Your task to perform on an android device: open chrome privacy settings Image 0: 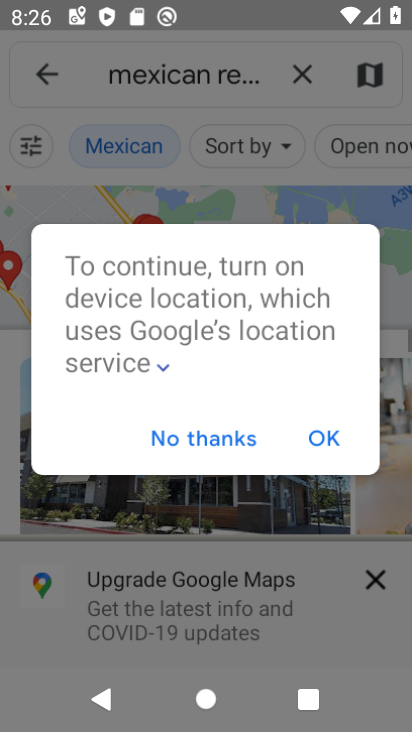
Step 0: press back button
Your task to perform on an android device: open chrome privacy settings Image 1: 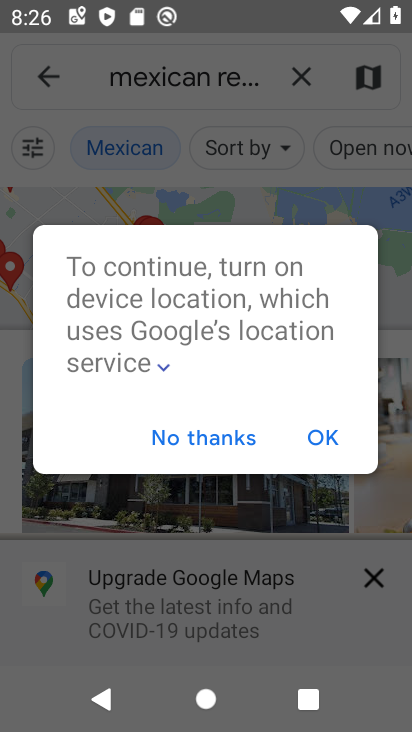
Step 1: press home button
Your task to perform on an android device: open chrome privacy settings Image 2: 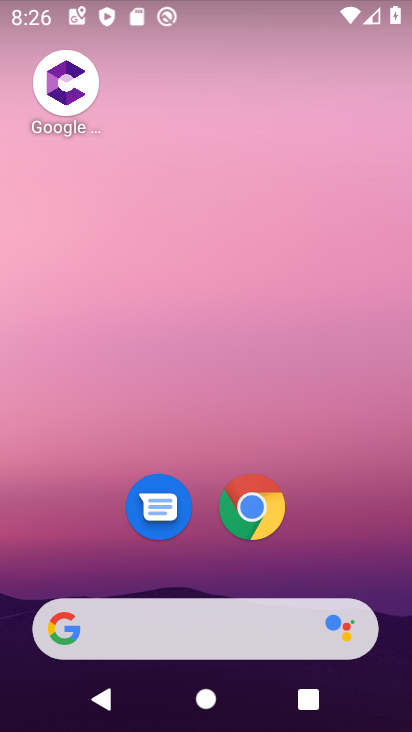
Step 2: click (250, 510)
Your task to perform on an android device: open chrome privacy settings Image 3: 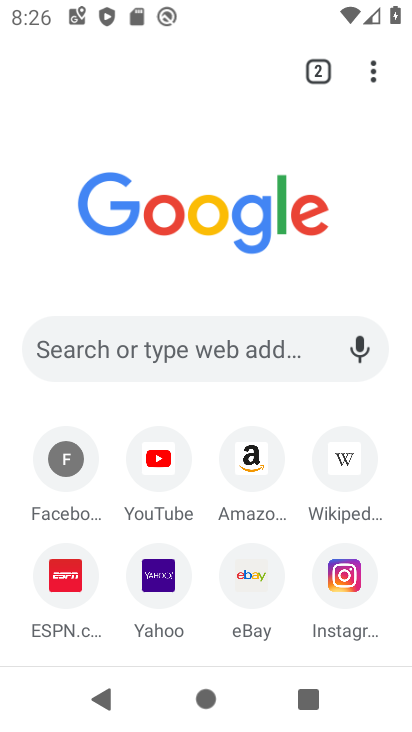
Step 3: click (374, 72)
Your task to perform on an android device: open chrome privacy settings Image 4: 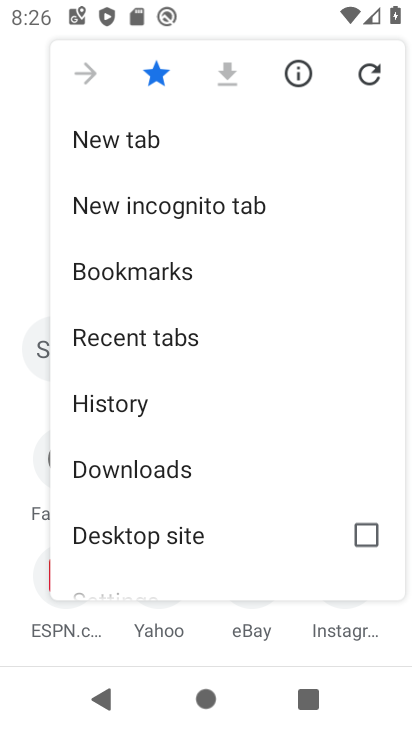
Step 4: drag from (202, 510) to (262, 77)
Your task to perform on an android device: open chrome privacy settings Image 5: 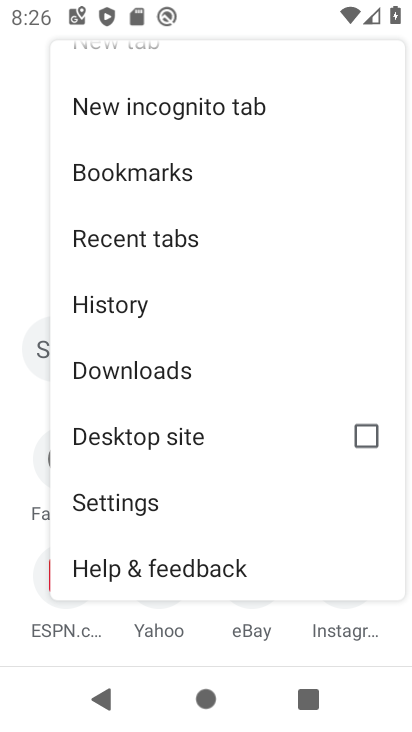
Step 5: click (107, 499)
Your task to perform on an android device: open chrome privacy settings Image 6: 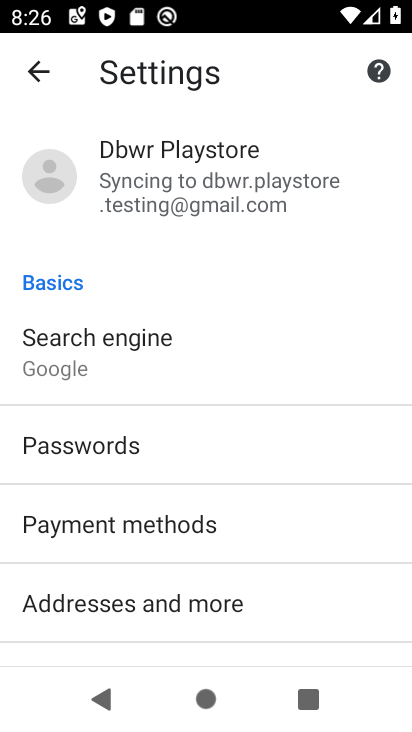
Step 6: drag from (154, 597) to (214, 122)
Your task to perform on an android device: open chrome privacy settings Image 7: 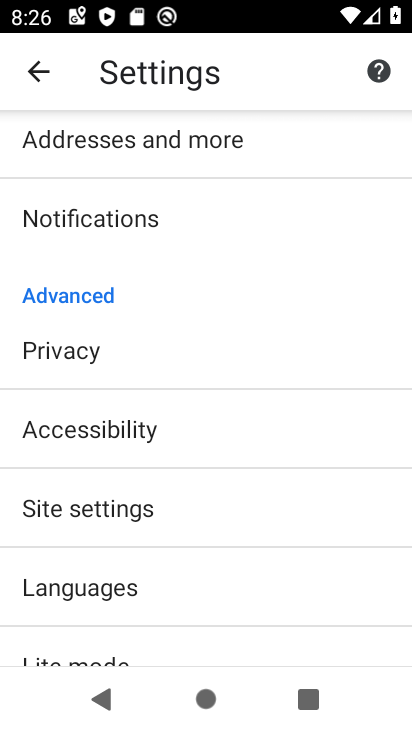
Step 7: drag from (168, 563) to (186, 370)
Your task to perform on an android device: open chrome privacy settings Image 8: 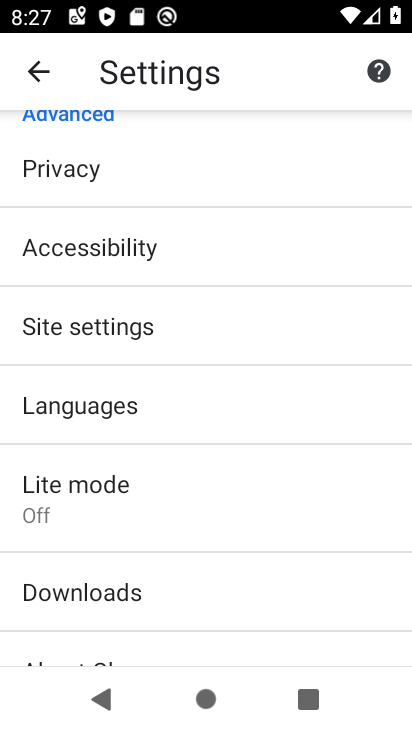
Step 8: click (78, 167)
Your task to perform on an android device: open chrome privacy settings Image 9: 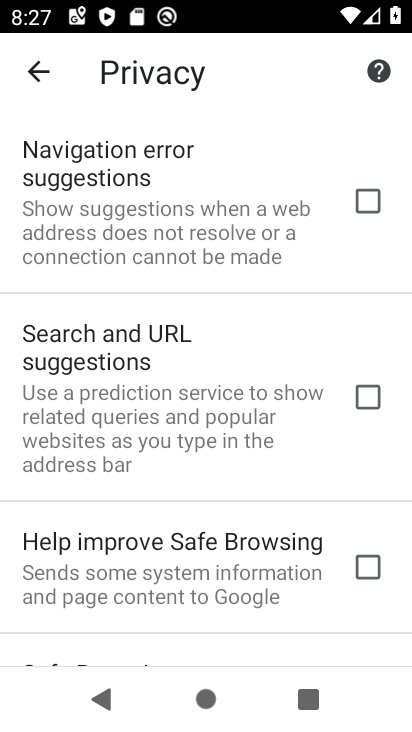
Step 9: task complete